Your task to perform on an android device: delete browsing data in the chrome app Image 0: 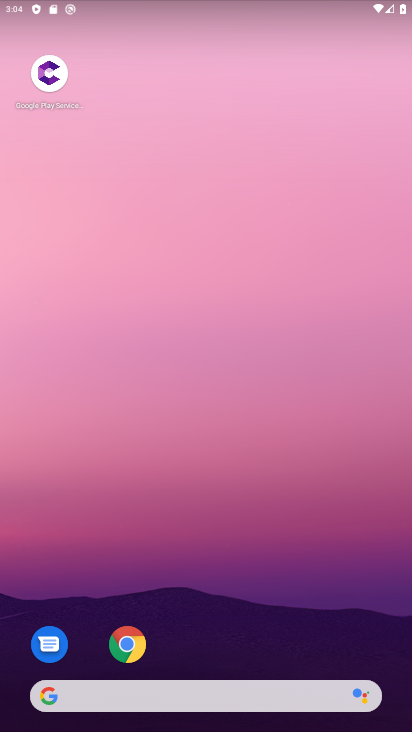
Step 0: click (125, 655)
Your task to perform on an android device: delete browsing data in the chrome app Image 1: 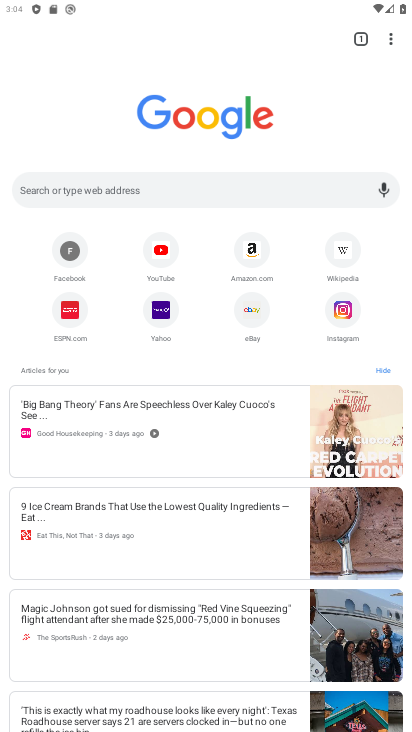
Step 1: click (393, 30)
Your task to perform on an android device: delete browsing data in the chrome app Image 2: 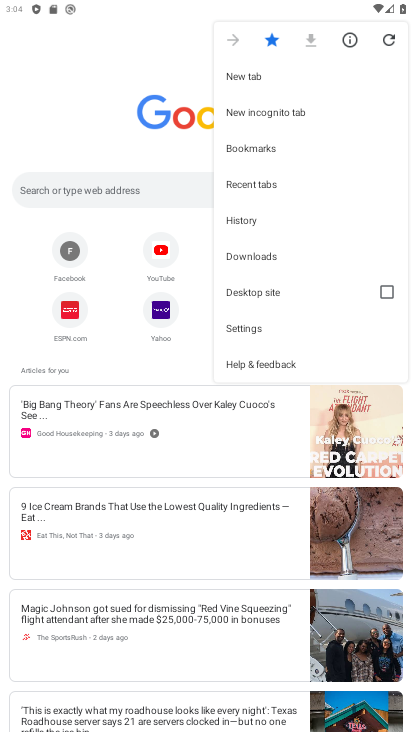
Step 2: click (260, 330)
Your task to perform on an android device: delete browsing data in the chrome app Image 3: 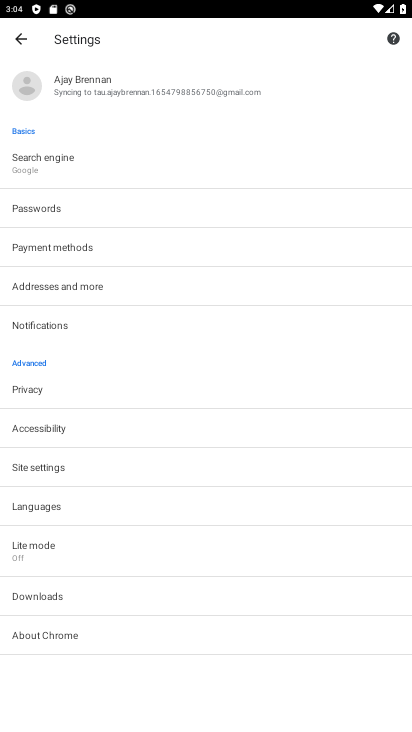
Step 3: click (58, 380)
Your task to perform on an android device: delete browsing data in the chrome app Image 4: 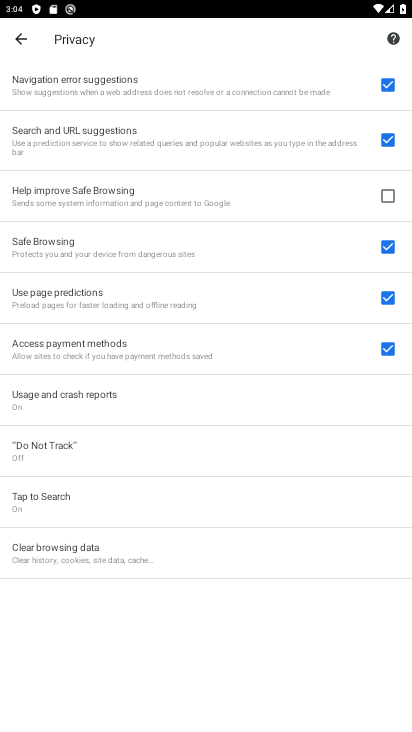
Step 4: click (152, 556)
Your task to perform on an android device: delete browsing data in the chrome app Image 5: 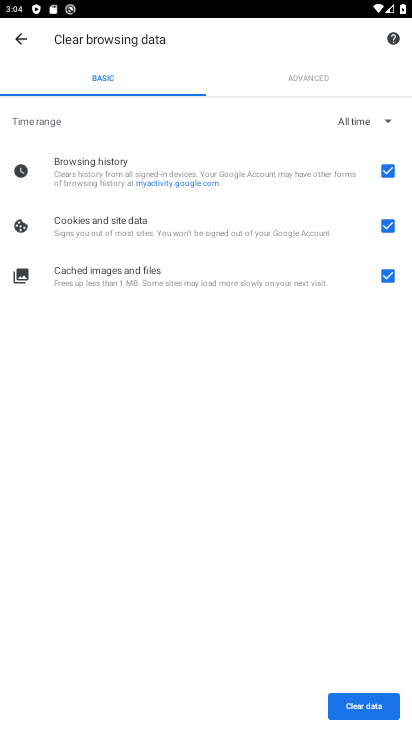
Step 5: click (385, 709)
Your task to perform on an android device: delete browsing data in the chrome app Image 6: 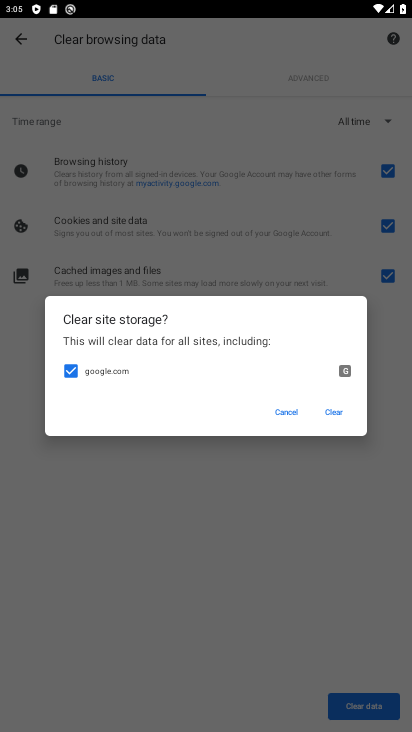
Step 6: click (329, 407)
Your task to perform on an android device: delete browsing data in the chrome app Image 7: 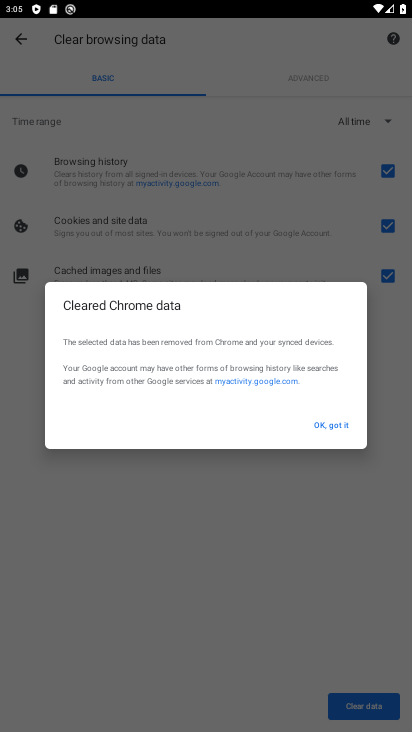
Step 7: click (331, 445)
Your task to perform on an android device: delete browsing data in the chrome app Image 8: 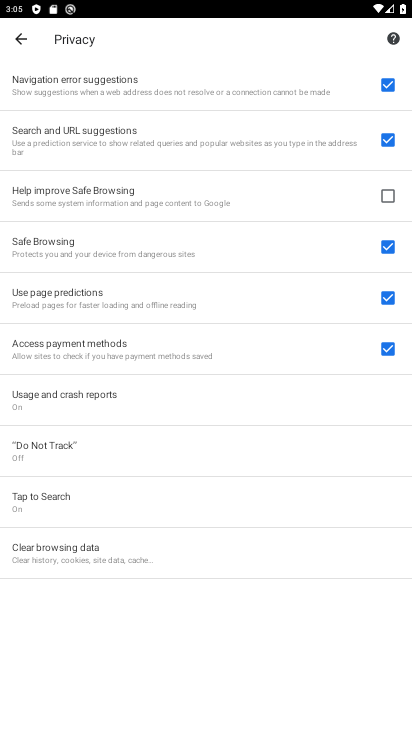
Step 8: task complete